Your task to perform on an android device: Go to Wikipedia Image 0: 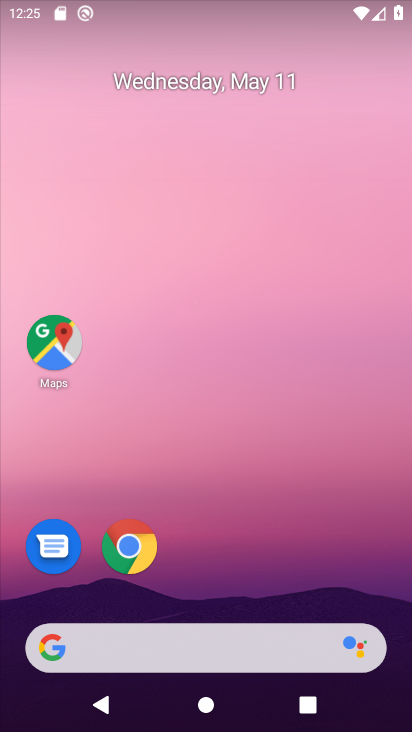
Step 0: drag from (242, 571) to (279, 250)
Your task to perform on an android device: Go to Wikipedia Image 1: 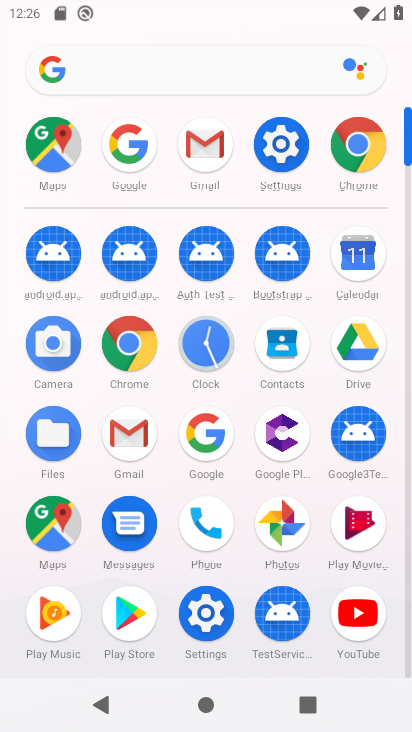
Step 1: click (348, 135)
Your task to perform on an android device: Go to Wikipedia Image 2: 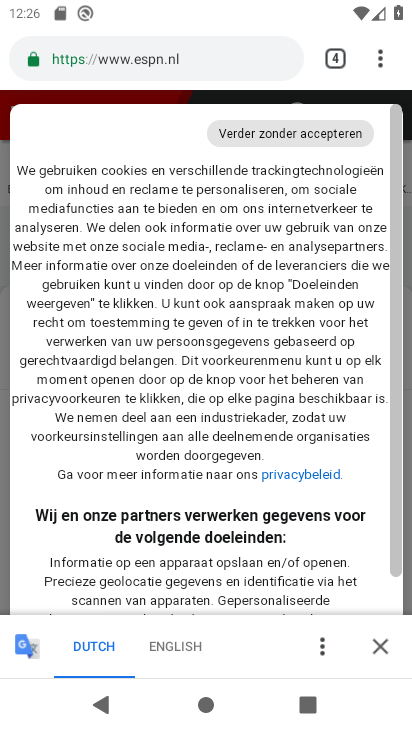
Step 2: click (370, 63)
Your task to perform on an android device: Go to Wikipedia Image 3: 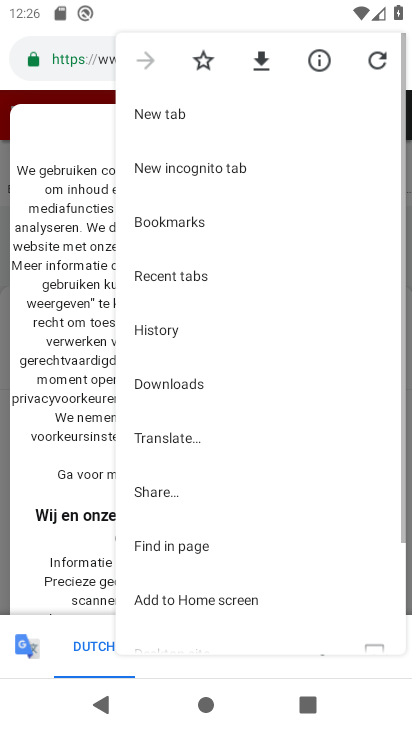
Step 3: click (172, 110)
Your task to perform on an android device: Go to Wikipedia Image 4: 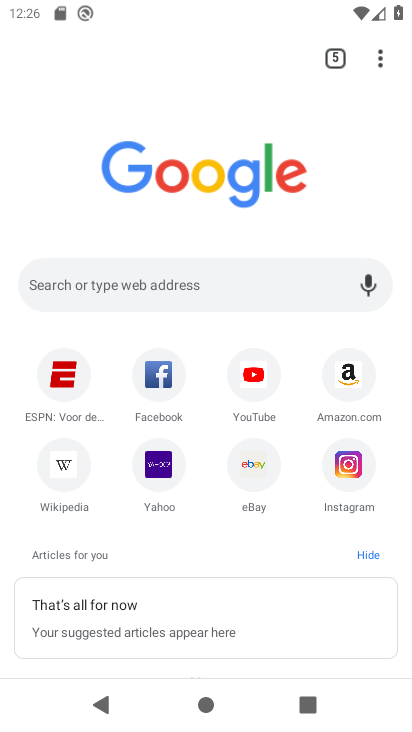
Step 4: click (59, 469)
Your task to perform on an android device: Go to Wikipedia Image 5: 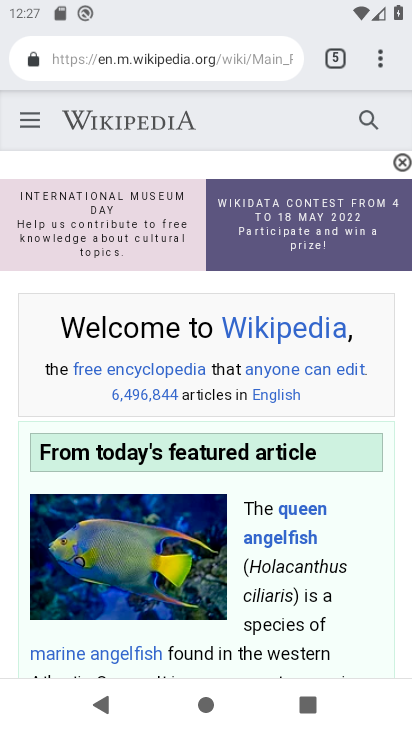
Step 5: task complete